Your task to perform on an android device: uninstall "Pinterest" Image 0: 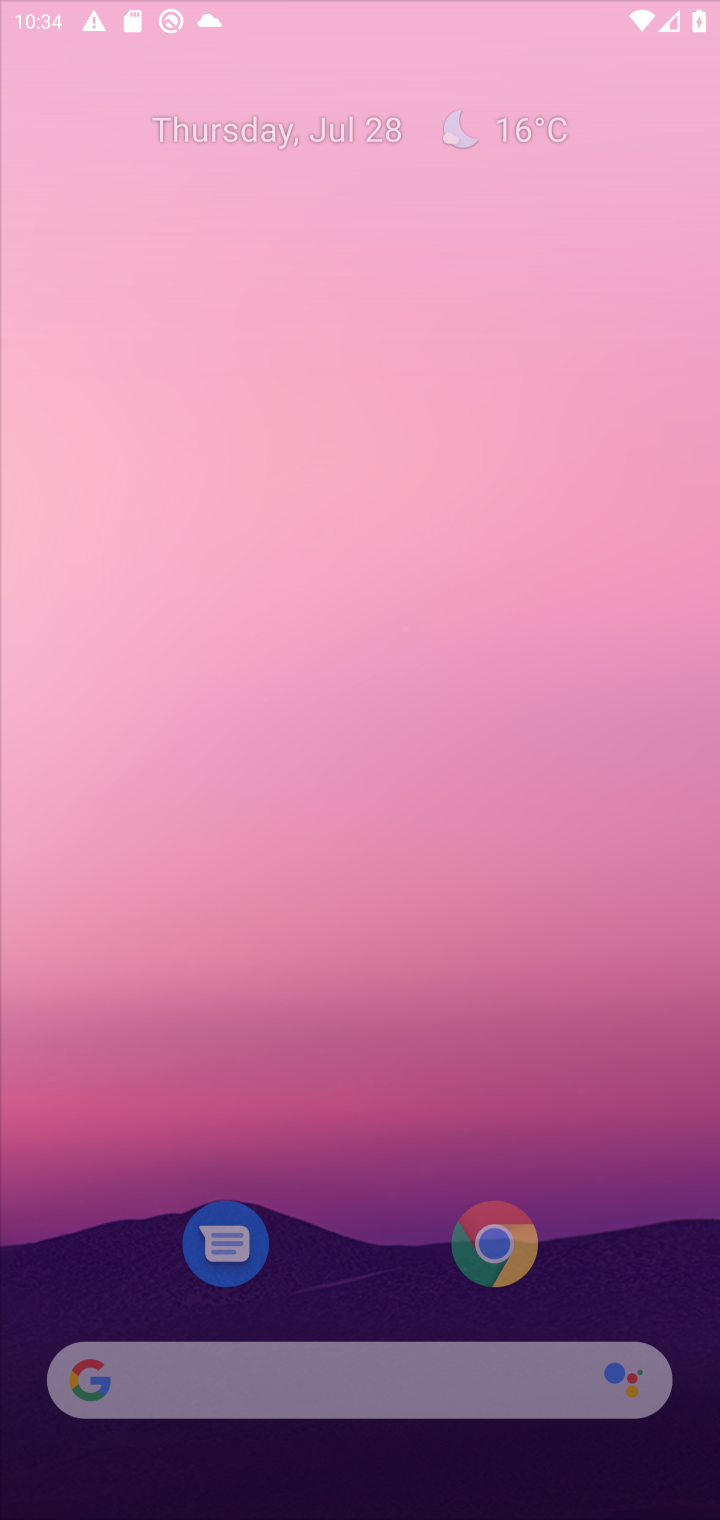
Step 0: press home button
Your task to perform on an android device: uninstall "Pinterest" Image 1: 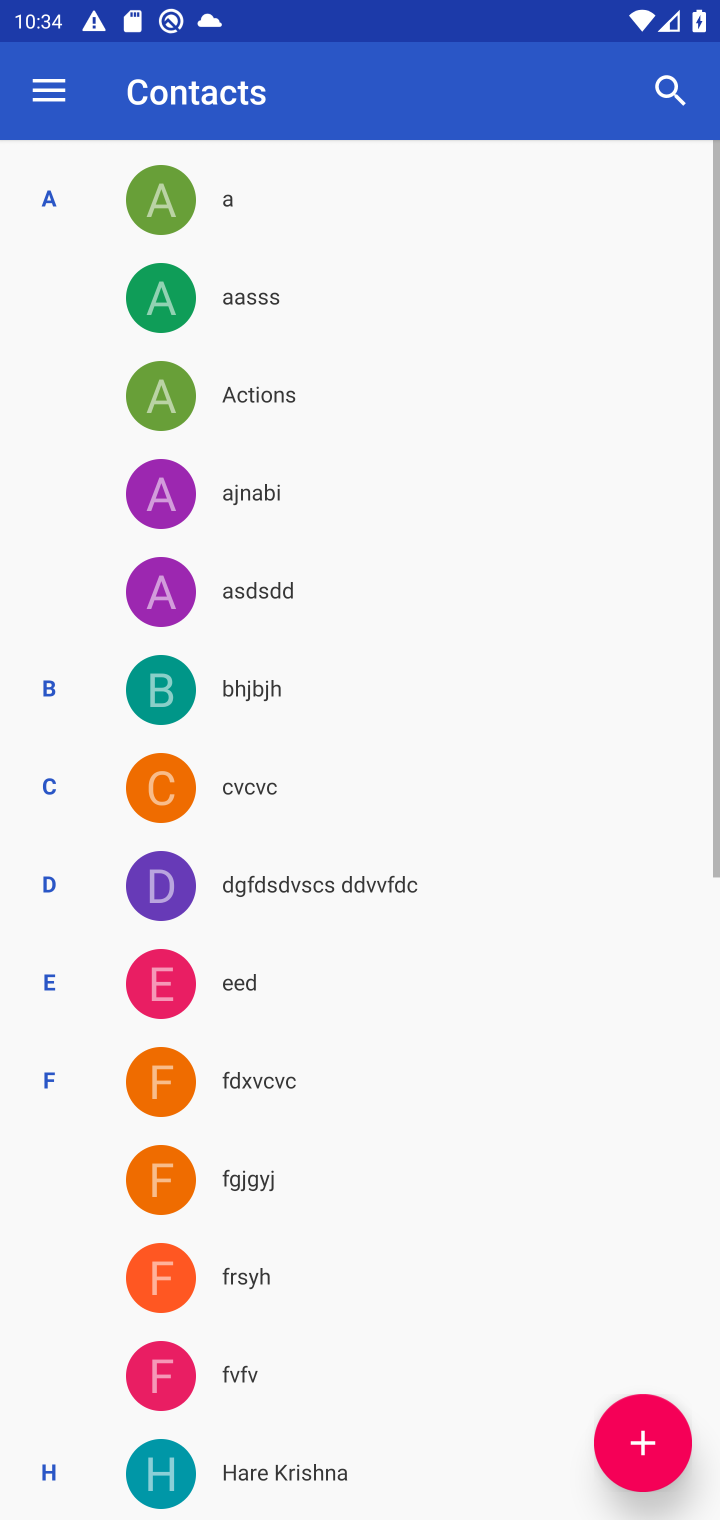
Step 1: click (521, 143)
Your task to perform on an android device: uninstall "Pinterest" Image 2: 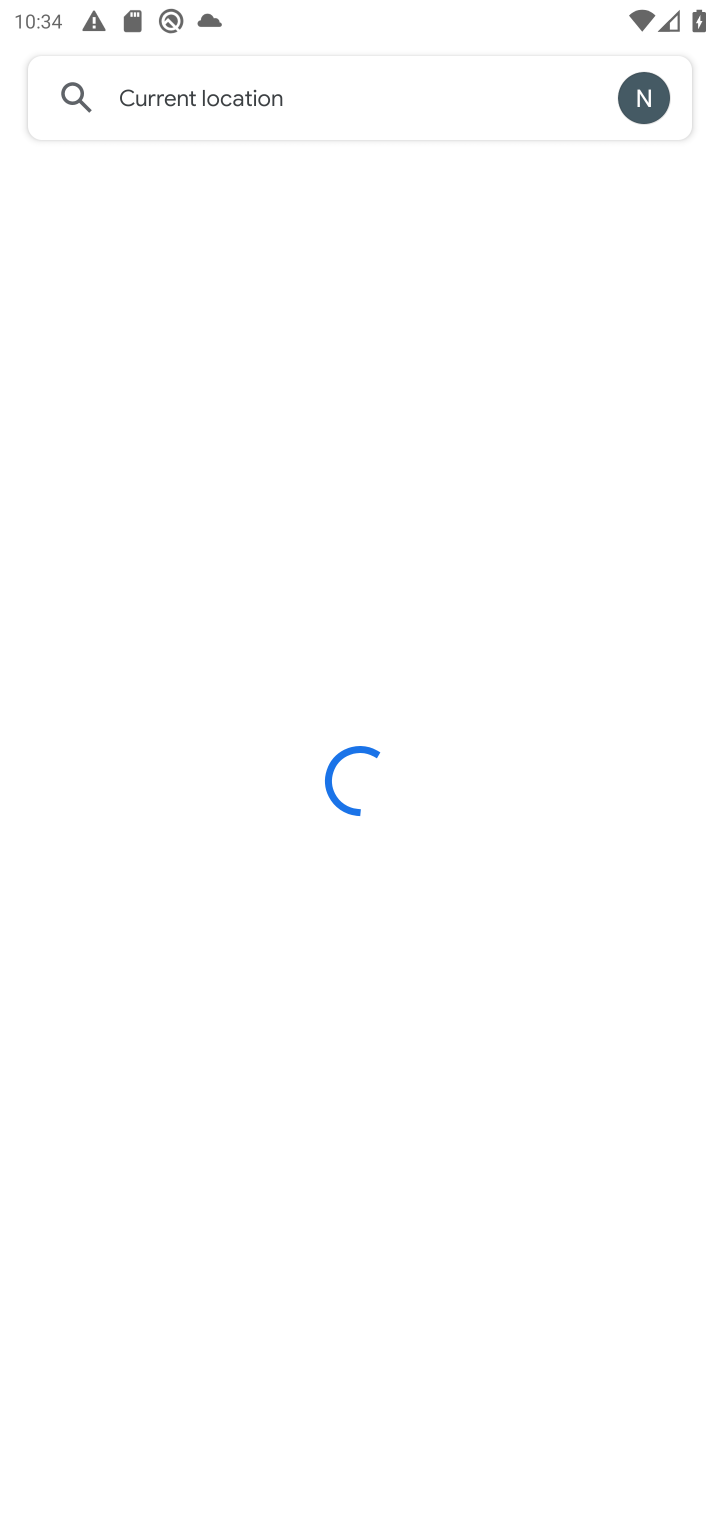
Step 2: press home button
Your task to perform on an android device: uninstall "Pinterest" Image 3: 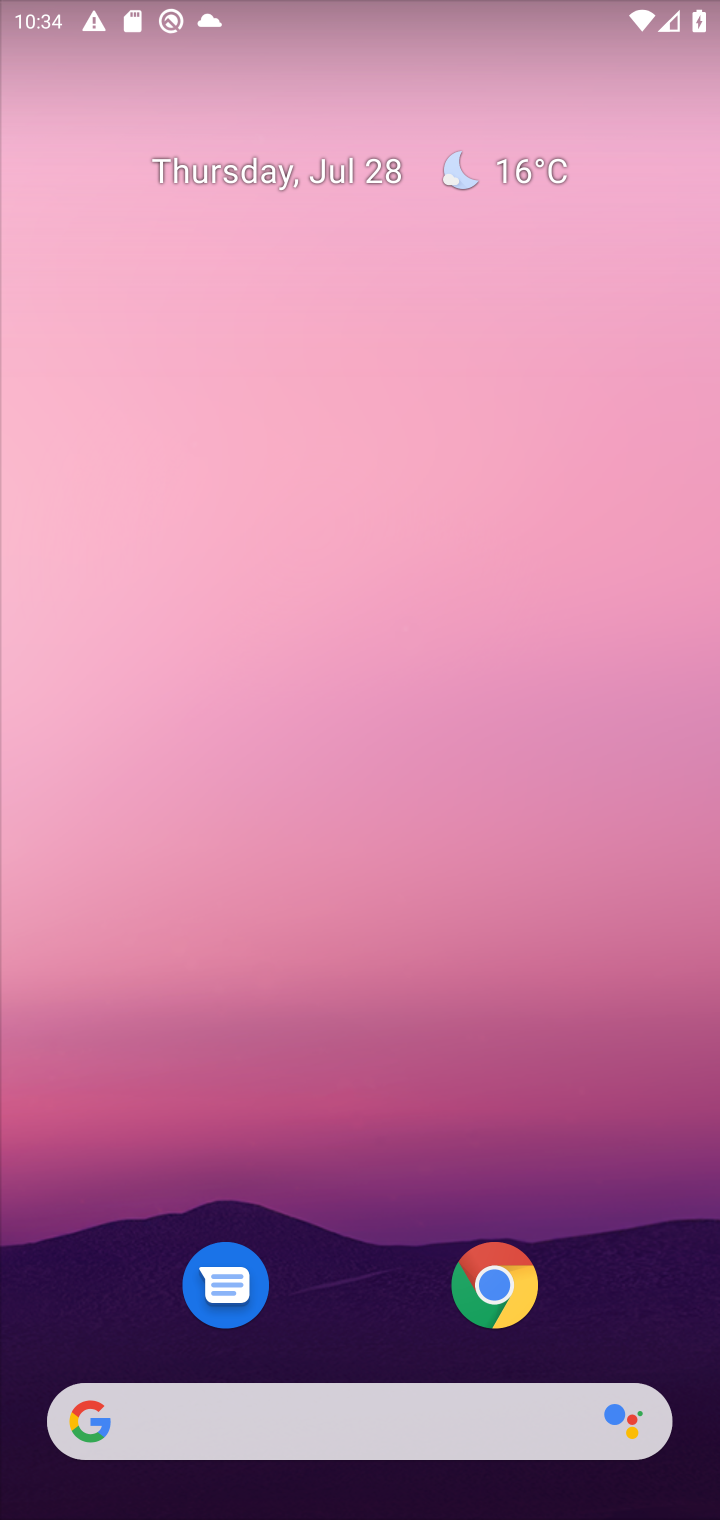
Step 3: drag from (442, 449) to (485, 52)
Your task to perform on an android device: uninstall "Pinterest" Image 4: 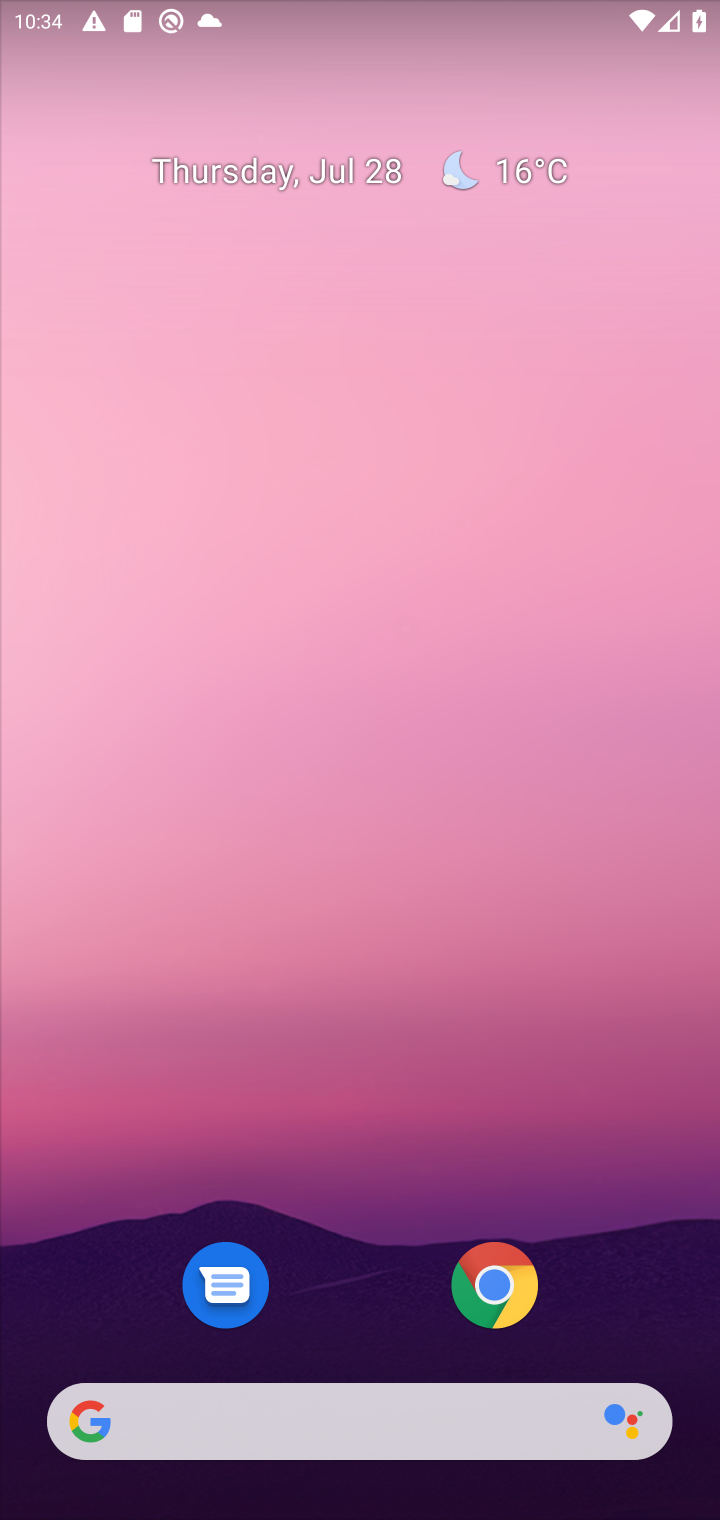
Step 4: drag from (384, 1201) to (433, 12)
Your task to perform on an android device: uninstall "Pinterest" Image 5: 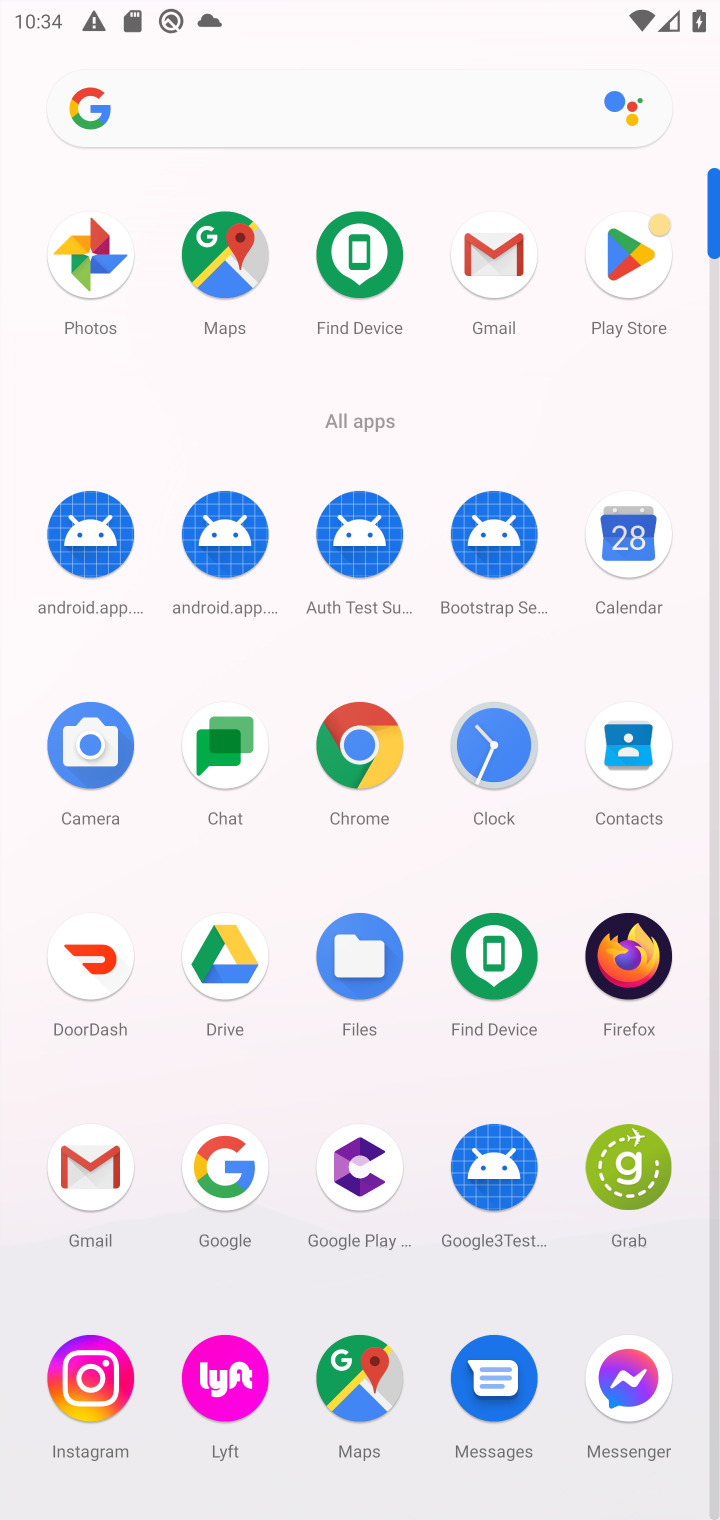
Step 5: click (650, 263)
Your task to perform on an android device: uninstall "Pinterest" Image 6: 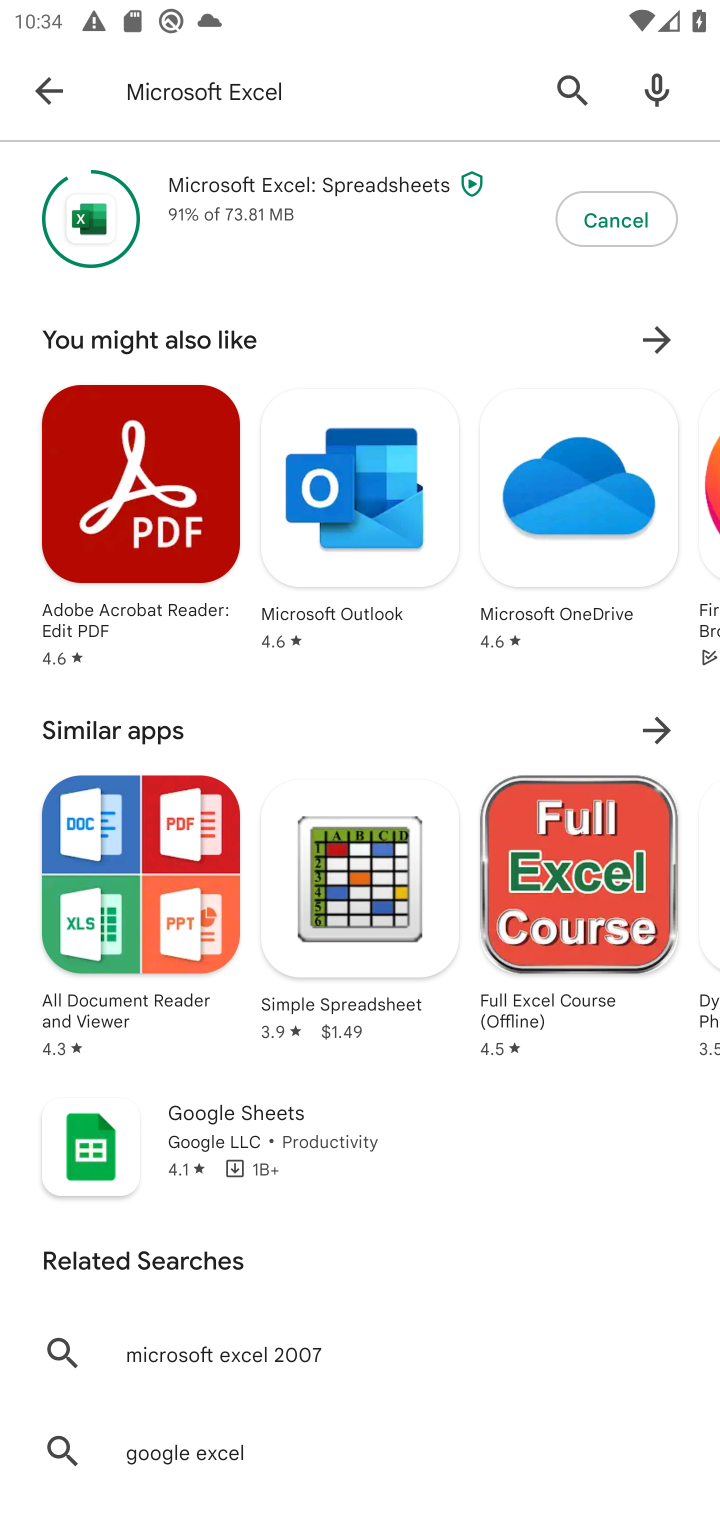
Step 6: click (529, 84)
Your task to perform on an android device: uninstall "Pinterest" Image 7: 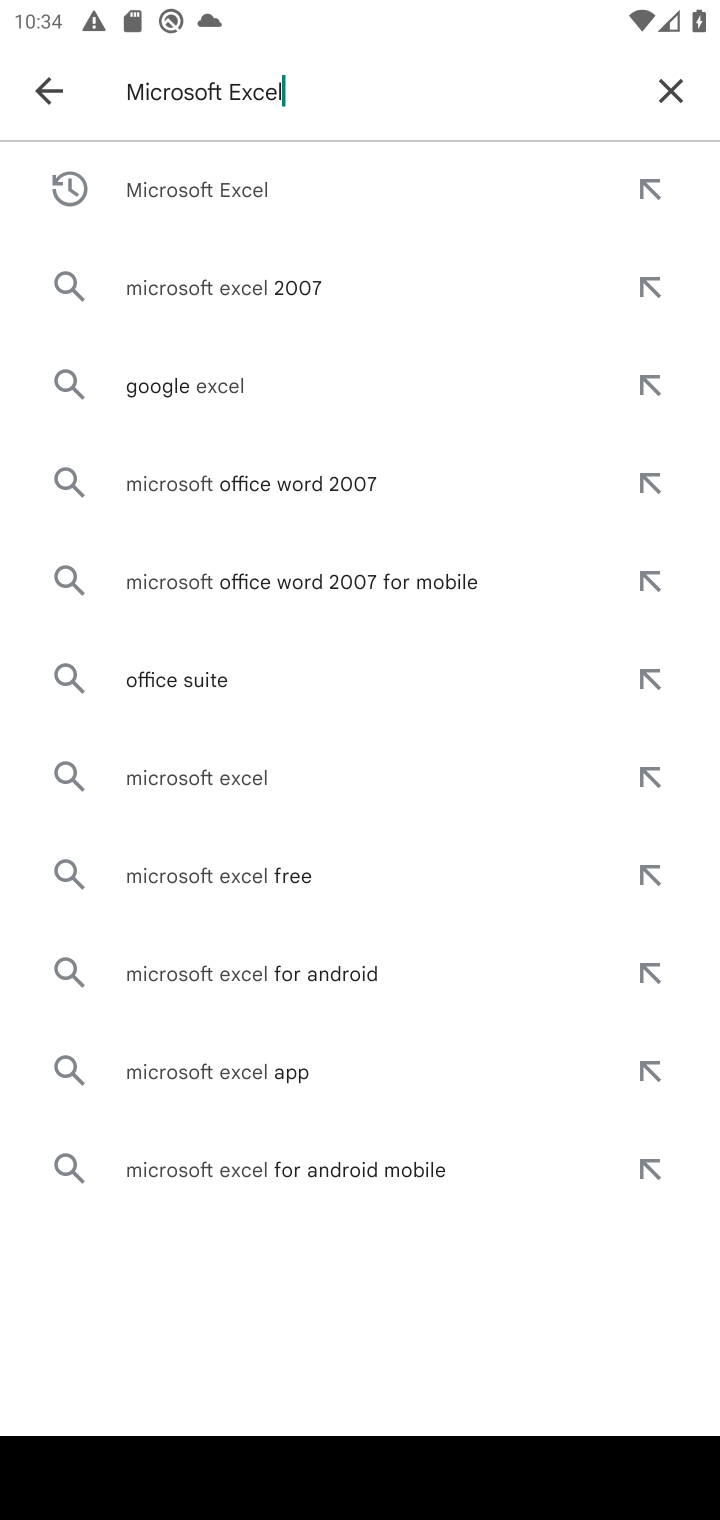
Step 7: click (675, 99)
Your task to perform on an android device: uninstall "Pinterest" Image 8: 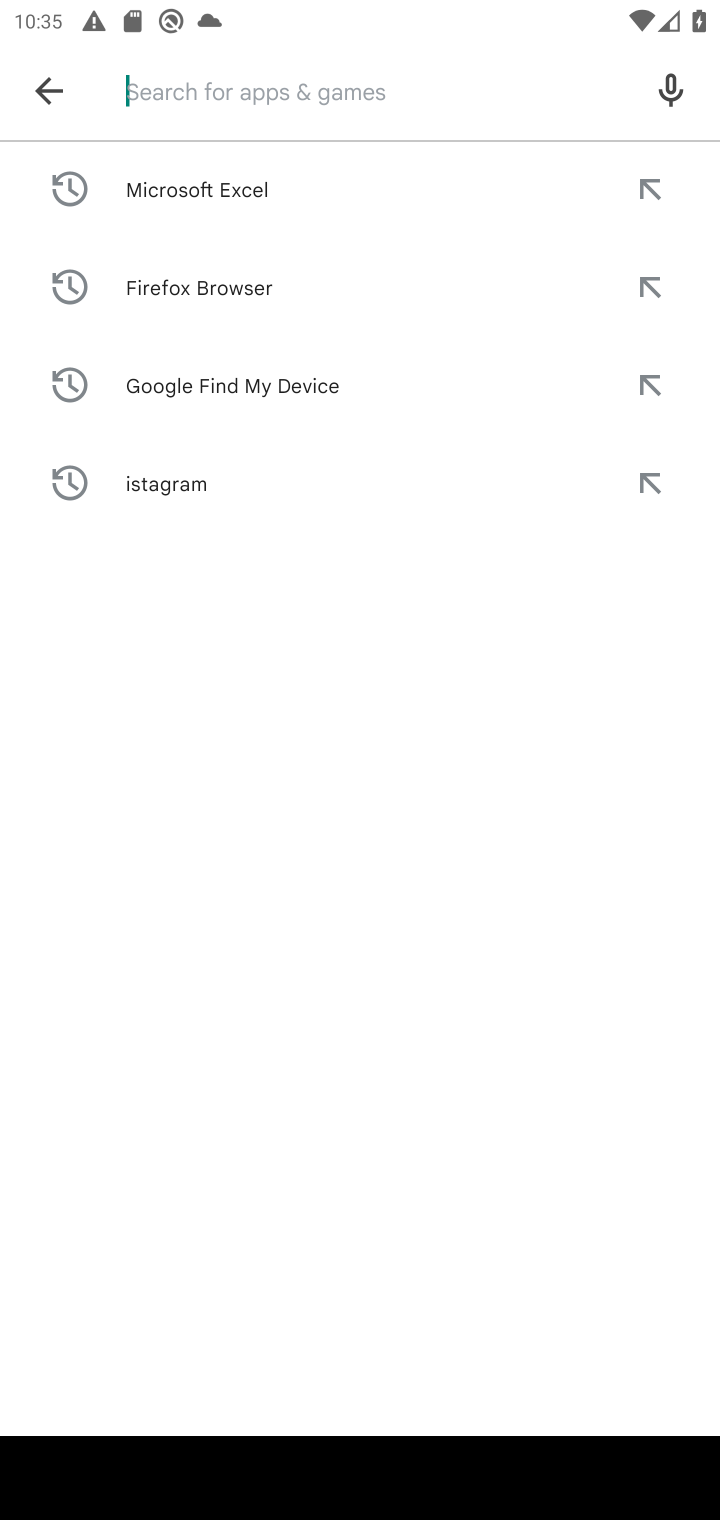
Step 8: type "Pinterest"
Your task to perform on an android device: uninstall "Pinterest" Image 9: 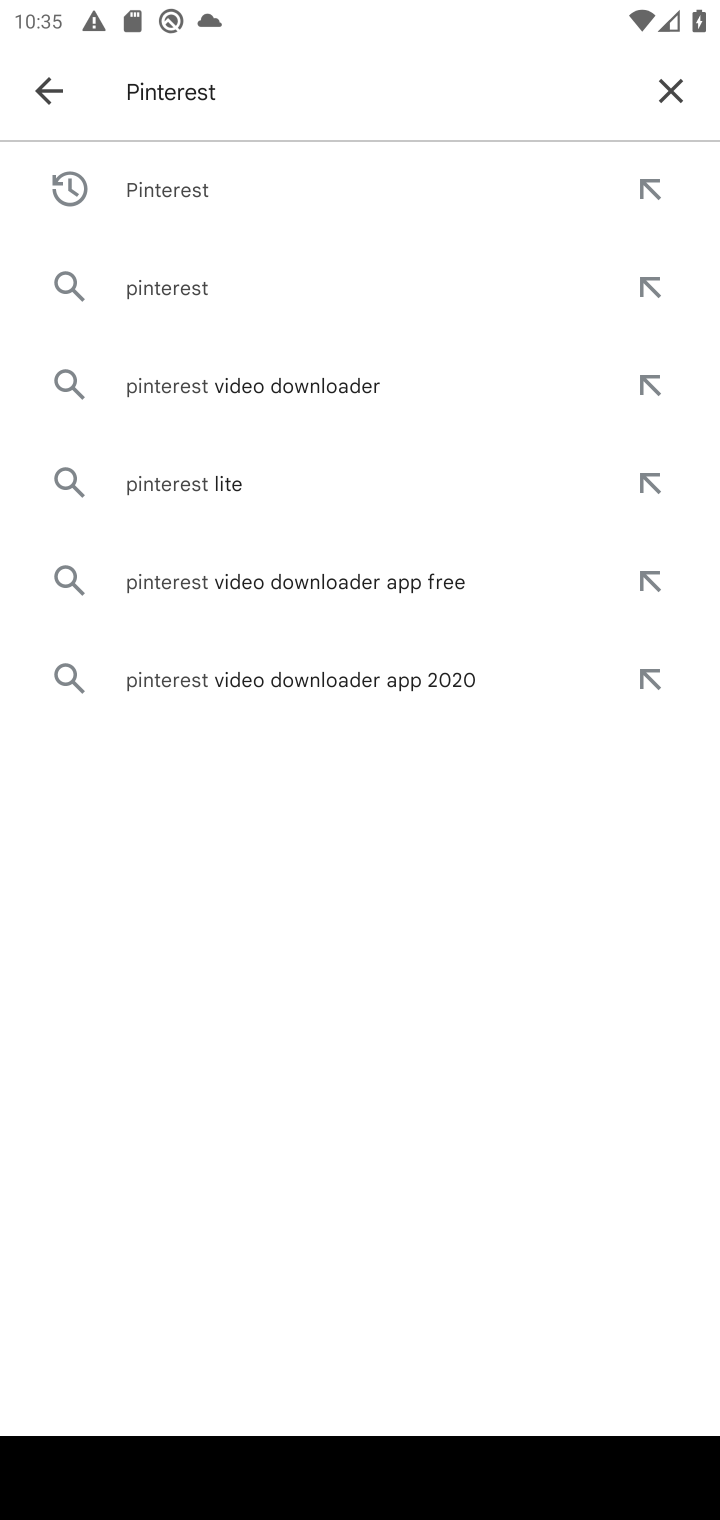
Step 9: click (149, 200)
Your task to perform on an android device: uninstall "Pinterest" Image 10: 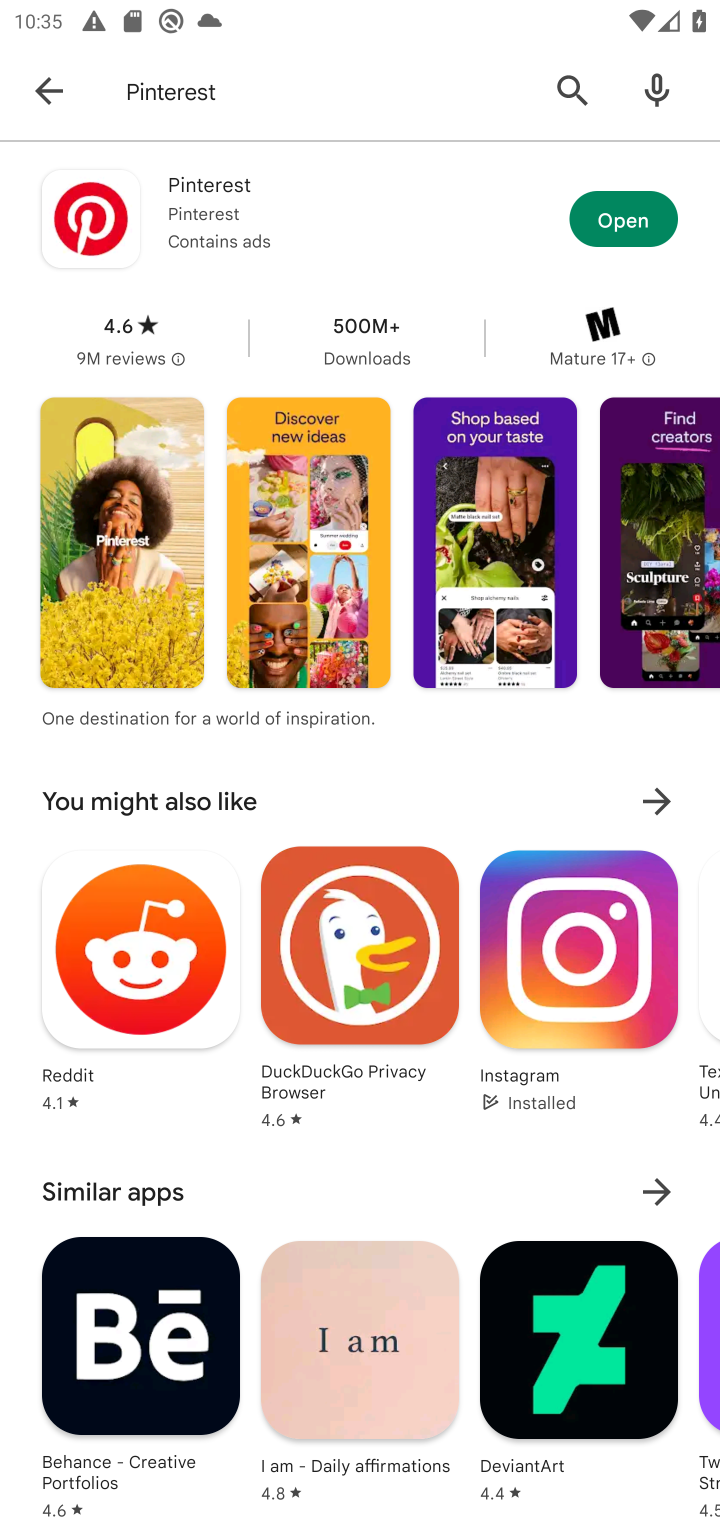
Step 10: click (360, 196)
Your task to perform on an android device: uninstall "Pinterest" Image 11: 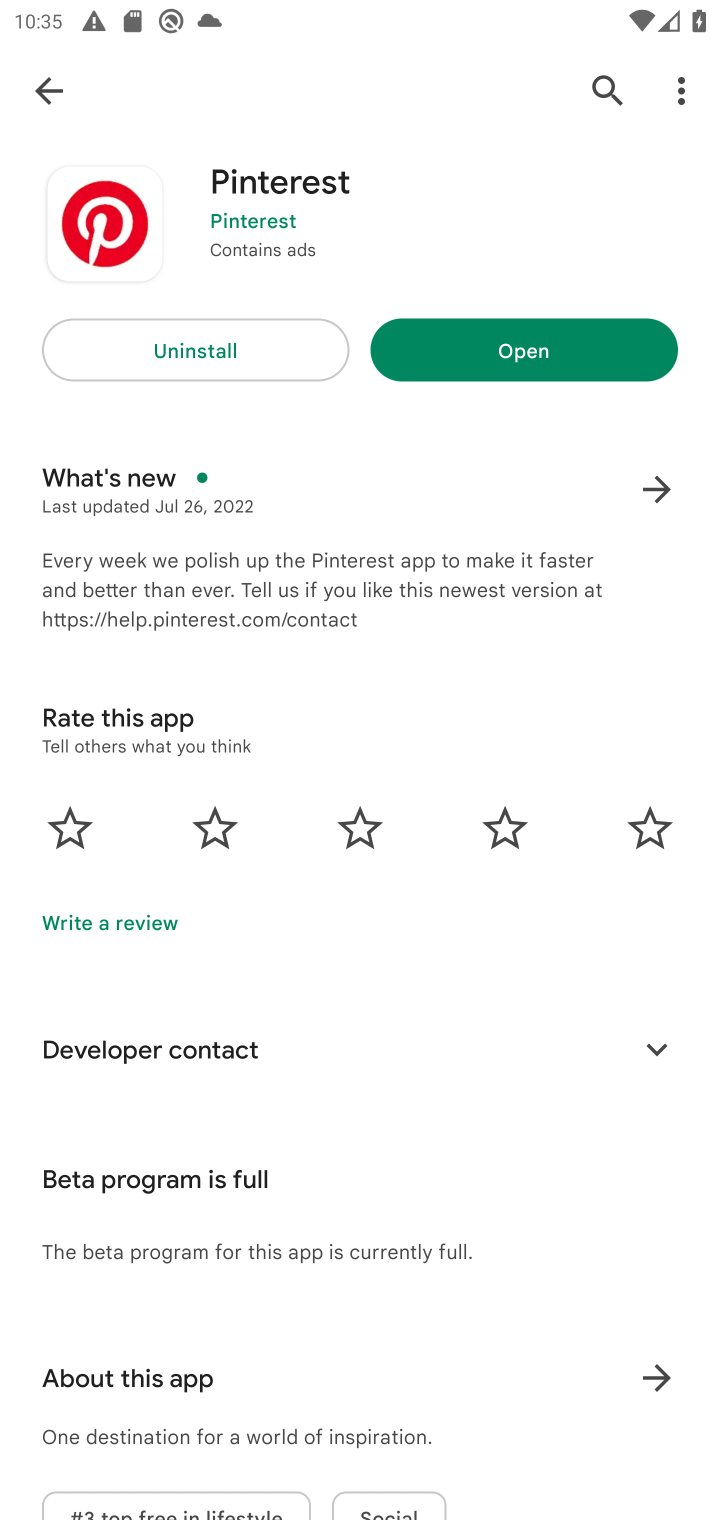
Step 11: click (225, 340)
Your task to perform on an android device: uninstall "Pinterest" Image 12: 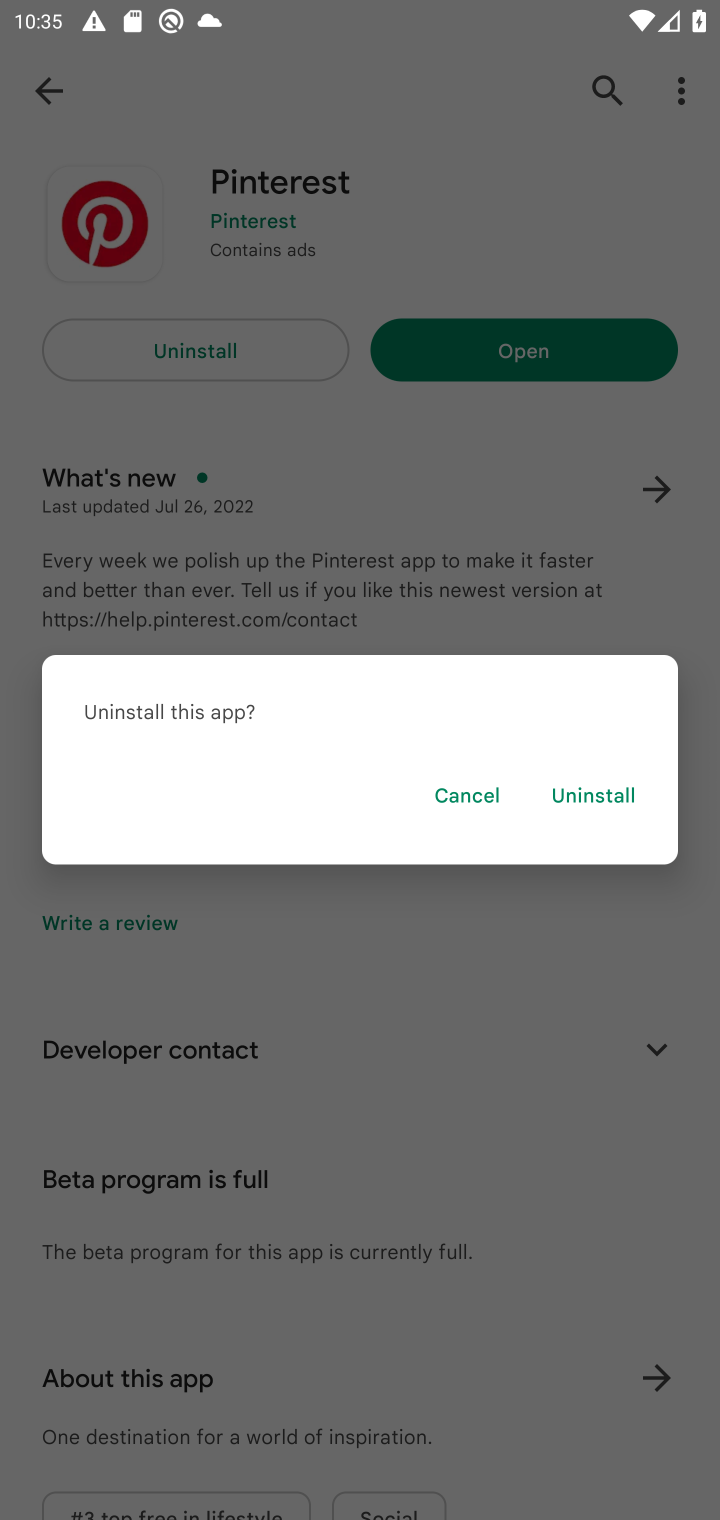
Step 12: click (608, 780)
Your task to perform on an android device: uninstall "Pinterest" Image 13: 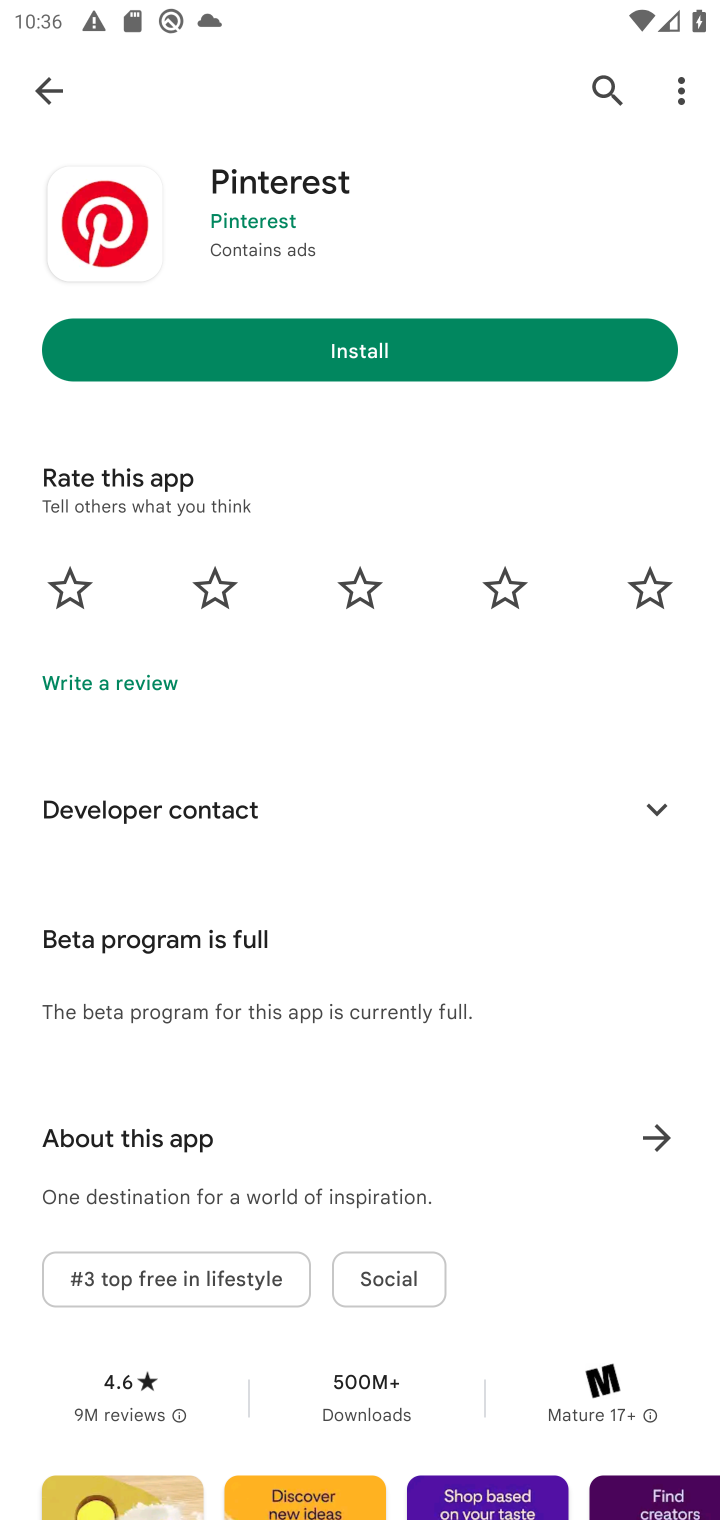
Step 13: task complete